Your task to perform on an android device: empty trash in the gmail app Image 0: 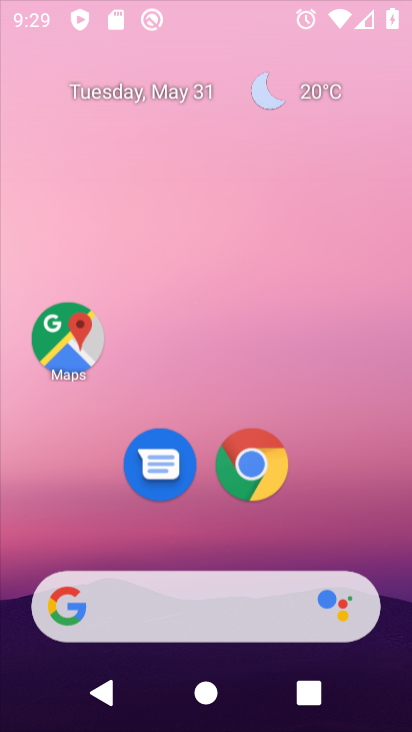
Step 0: click (299, 92)
Your task to perform on an android device: empty trash in the gmail app Image 1: 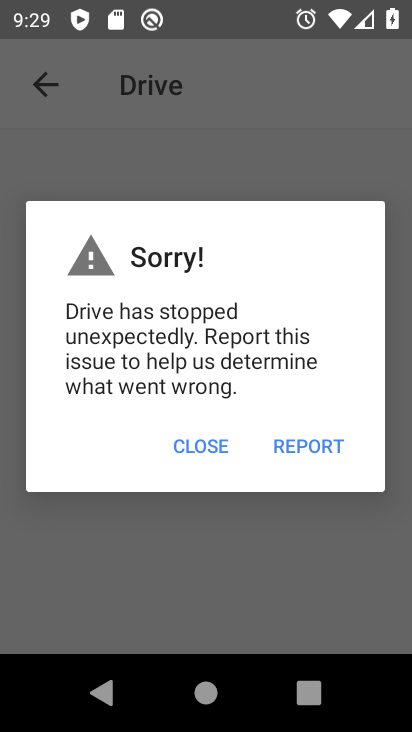
Step 1: drag from (94, 463) to (214, 68)
Your task to perform on an android device: empty trash in the gmail app Image 2: 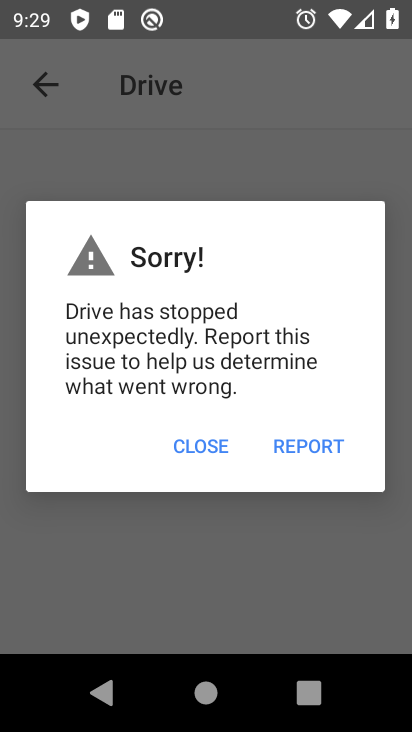
Step 2: click (226, 442)
Your task to perform on an android device: empty trash in the gmail app Image 3: 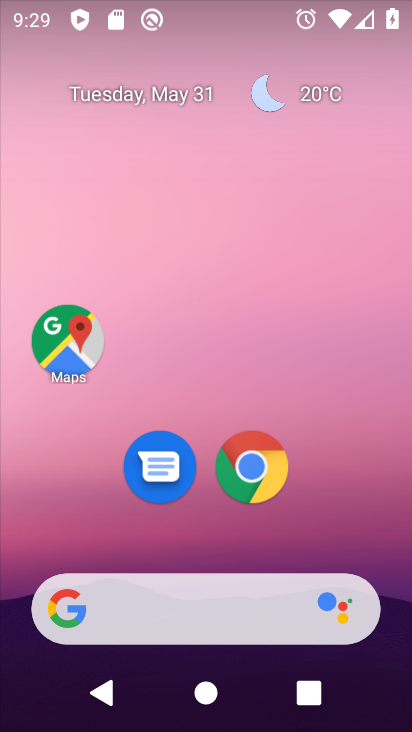
Step 3: press home button
Your task to perform on an android device: empty trash in the gmail app Image 4: 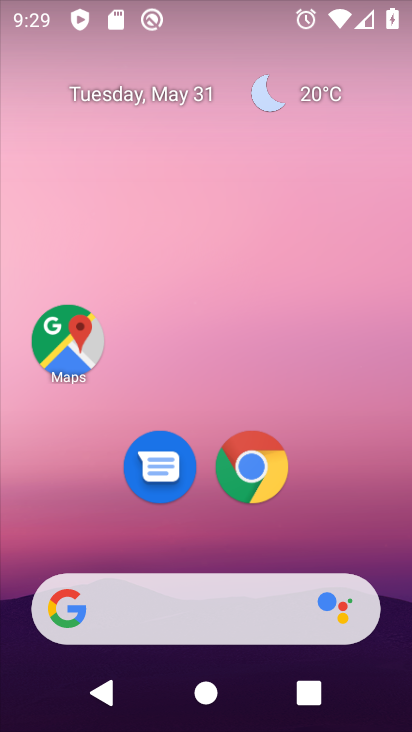
Step 4: drag from (214, 500) to (207, 91)
Your task to perform on an android device: empty trash in the gmail app Image 5: 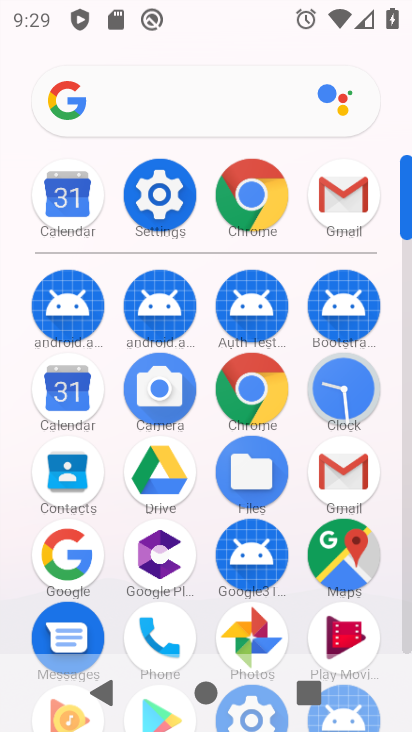
Step 5: click (350, 457)
Your task to perform on an android device: empty trash in the gmail app Image 6: 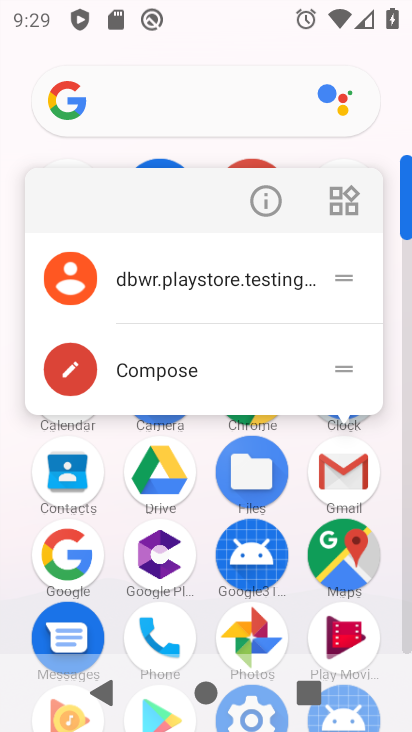
Step 6: click (259, 210)
Your task to perform on an android device: empty trash in the gmail app Image 7: 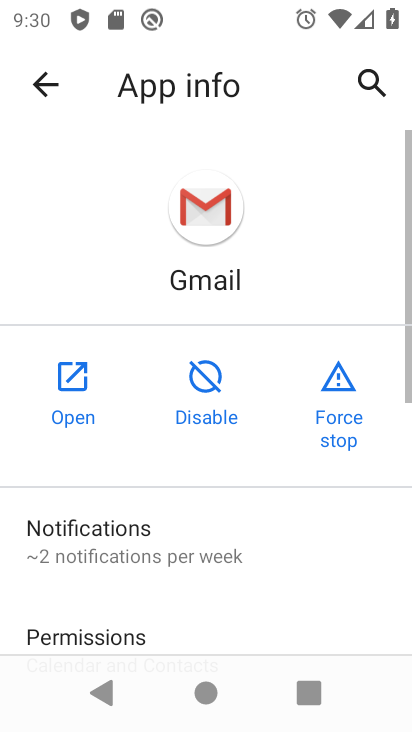
Step 7: click (83, 370)
Your task to perform on an android device: empty trash in the gmail app Image 8: 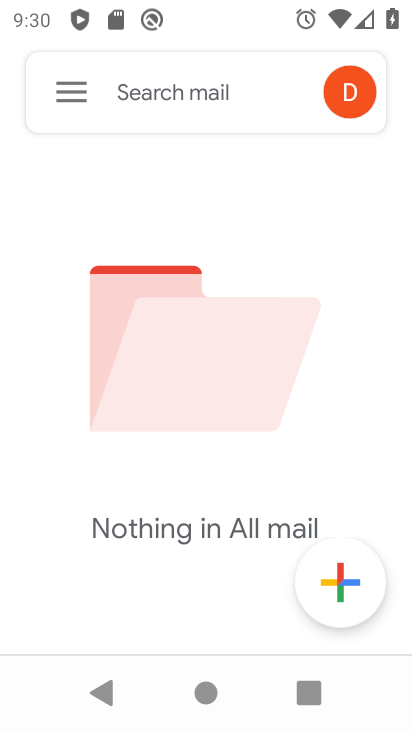
Step 8: click (58, 102)
Your task to perform on an android device: empty trash in the gmail app Image 9: 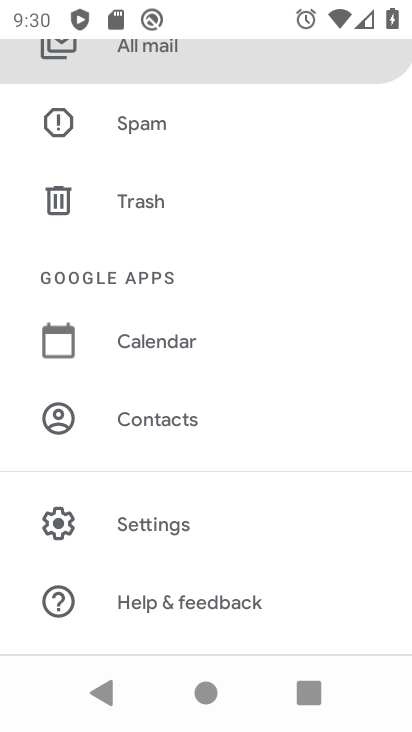
Step 9: drag from (136, 157) to (183, 402)
Your task to perform on an android device: empty trash in the gmail app Image 10: 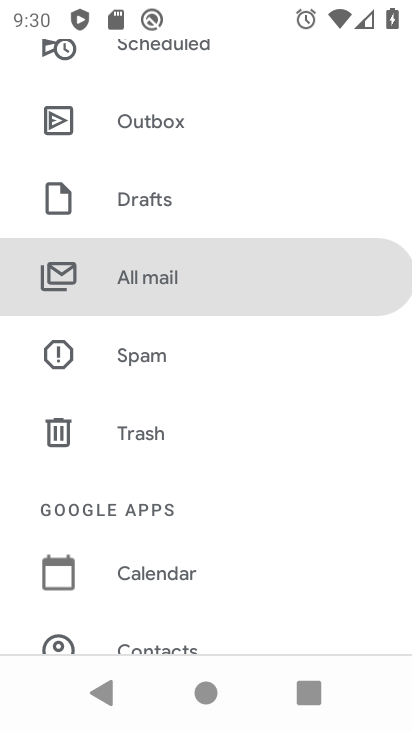
Step 10: click (143, 427)
Your task to perform on an android device: empty trash in the gmail app Image 11: 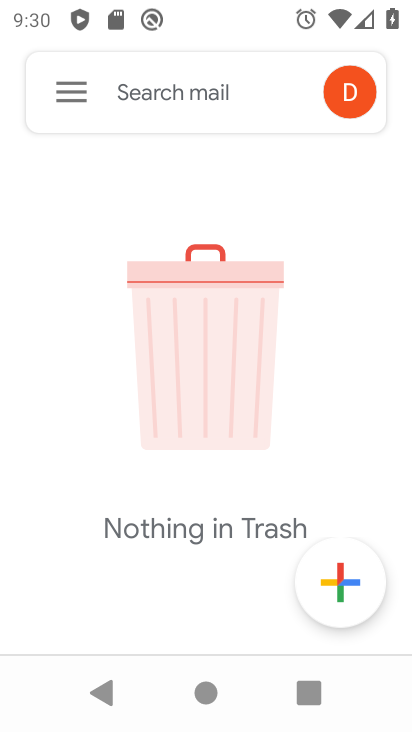
Step 11: task complete